Your task to perform on an android device: Add "lenovo thinkpad" to the cart on target, then select checkout. Image 0: 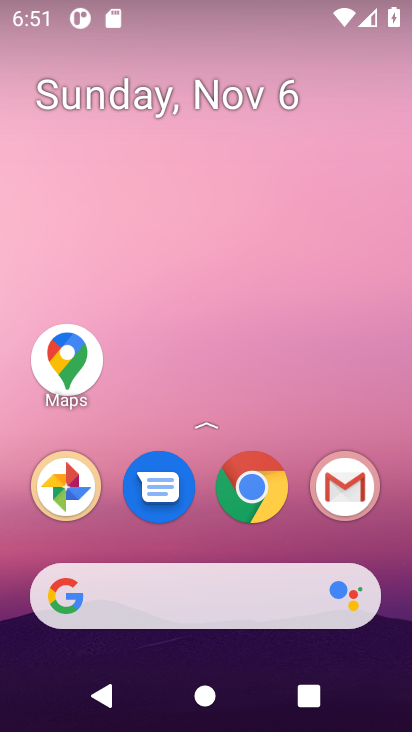
Step 0: click (219, 472)
Your task to perform on an android device: Add "lenovo thinkpad" to the cart on target, then select checkout. Image 1: 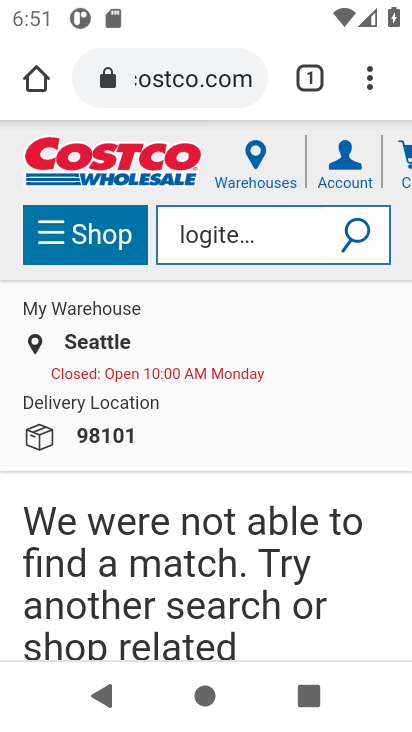
Step 1: click (201, 89)
Your task to perform on an android device: Add "lenovo thinkpad" to the cart on target, then select checkout. Image 2: 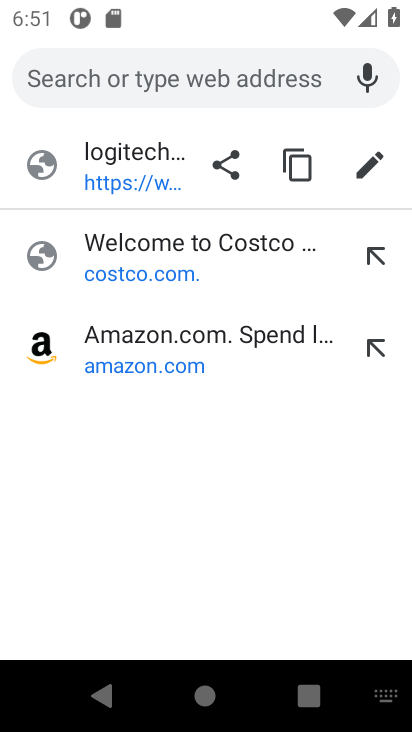
Step 2: type "target"
Your task to perform on an android device: Add "lenovo thinkpad" to the cart on target, then select checkout. Image 3: 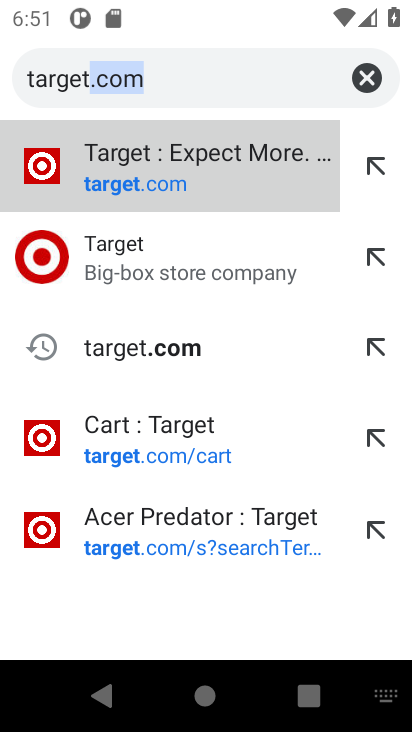
Step 3: click (102, 186)
Your task to perform on an android device: Add "lenovo thinkpad" to the cart on target, then select checkout. Image 4: 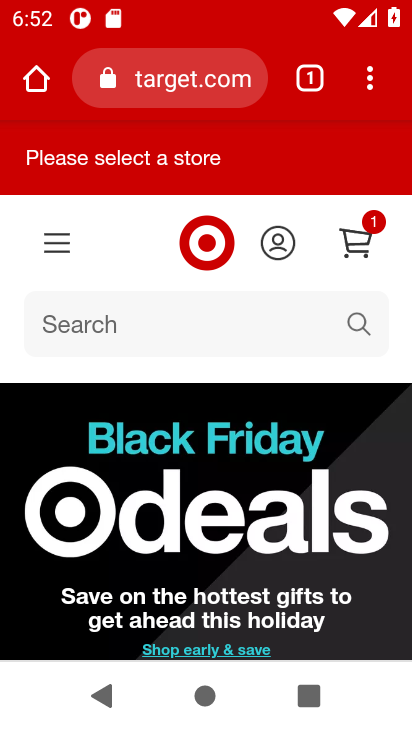
Step 4: click (112, 333)
Your task to perform on an android device: Add "lenovo thinkpad" to the cart on target, then select checkout. Image 5: 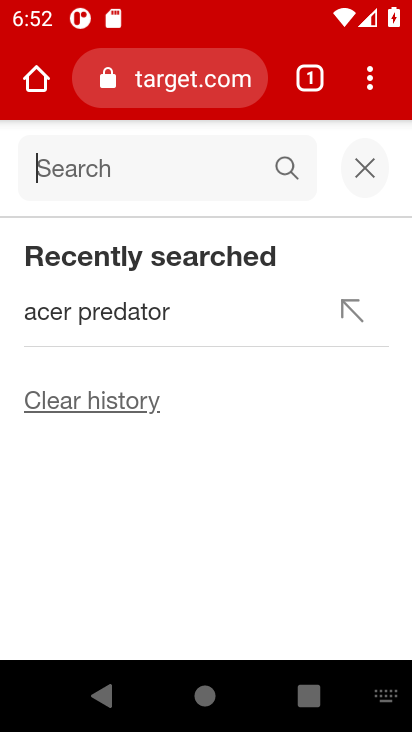
Step 5: type ""lenovo thinkpad"
Your task to perform on an android device: Add "lenovo thinkpad" to the cart on target, then select checkout. Image 6: 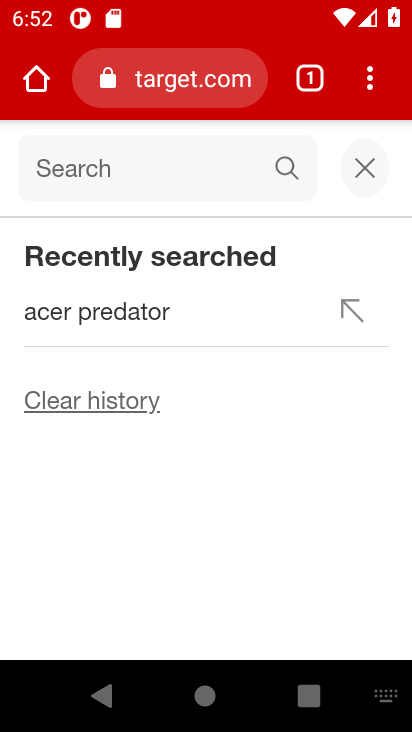
Step 6: type "lenovo thinkpad"
Your task to perform on an android device: Add "lenovo thinkpad" to the cart on target, then select checkout. Image 7: 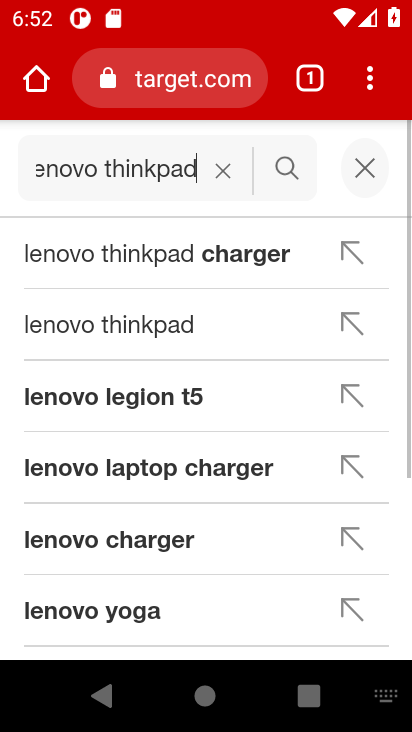
Step 7: type ""
Your task to perform on an android device: Add "lenovo thinkpad" to the cart on target, then select checkout. Image 8: 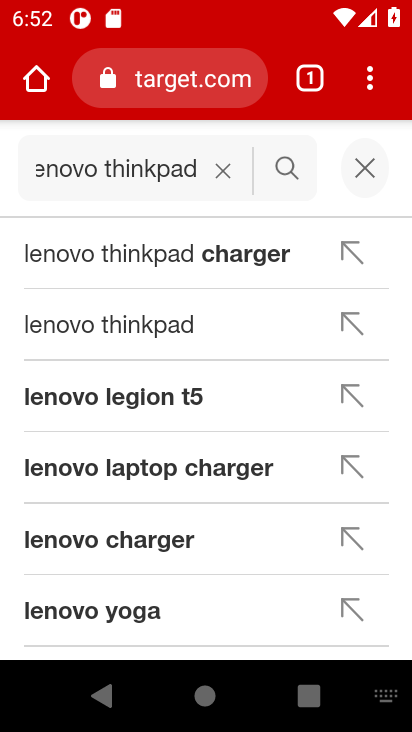
Step 8: click (281, 175)
Your task to perform on an android device: Add "lenovo thinkpad" to the cart on target, then select checkout. Image 9: 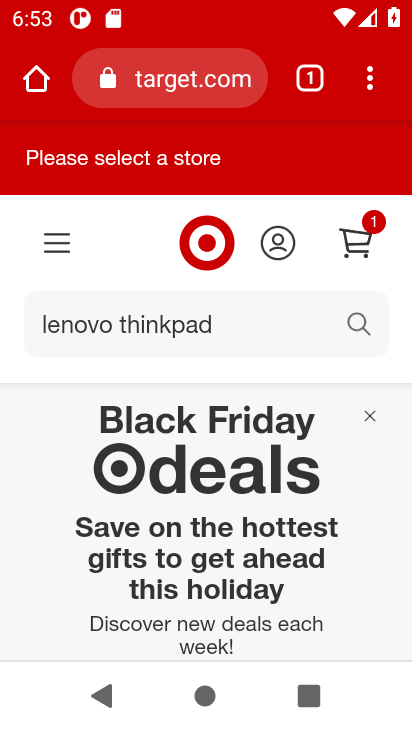
Step 9: drag from (113, 648) to (151, 138)
Your task to perform on an android device: Add "lenovo thinkpad" to the cart on target, then select checkout. Image 10: 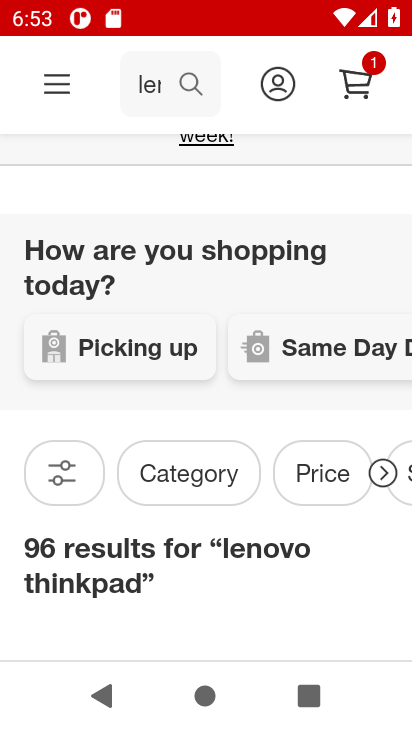
Step 10: drag from (174, 608) to (235, 162)
Your task to perform on an android device: Add "lenovo thinkpad" to the cart on target, then select checkout. Image 11: 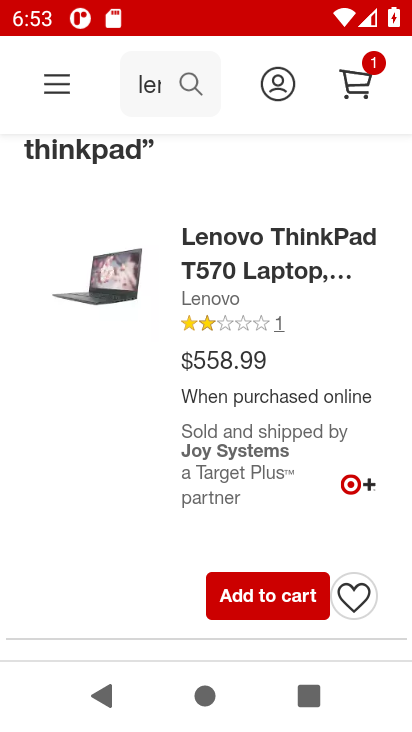
Step 11: click (246, 588)
Your task to perform on an android device: Add "lenovo thinkpad" to the cart on target, then select checkout. Image 12: 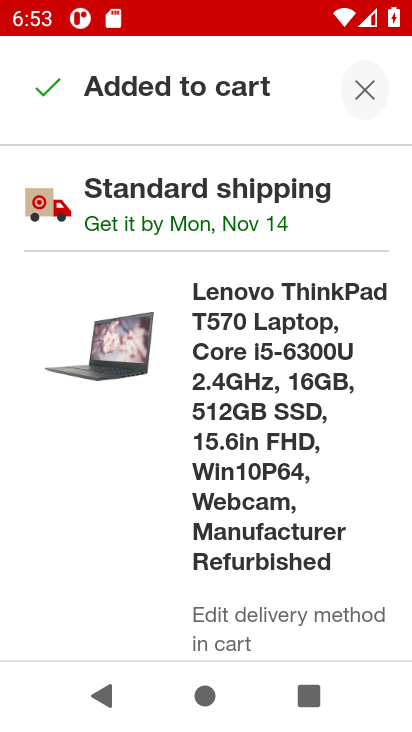
Step 12: drag from (235, 576) to (281, 133)
Your task to perform on an android device: Add "lenovo thinkpad" to the cart on target, then select checkout. Image 13: 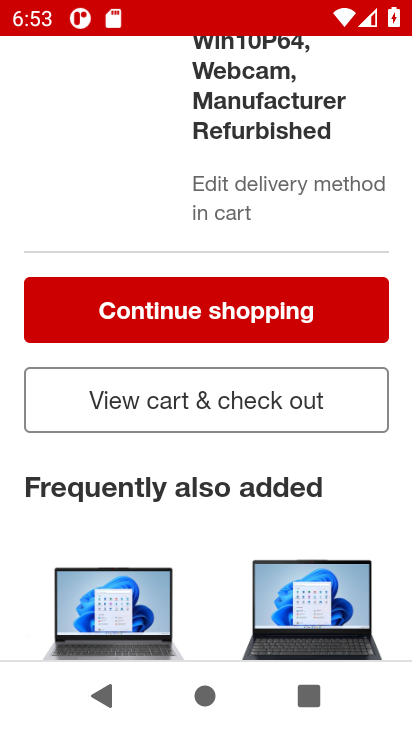
Step 13: click (230, 394)
Your task to perform on an android device: Add "lenovo thinkpad" to the cart on target, then select checkout. Image 14: 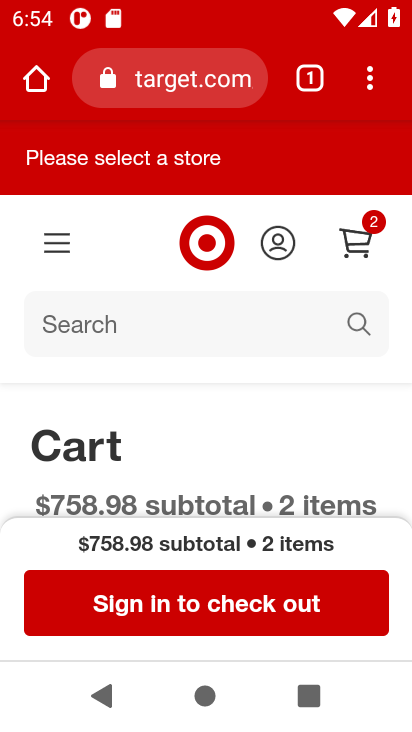
Step 14: task complete